Your task to perform on an android device: turn off location Image 0: 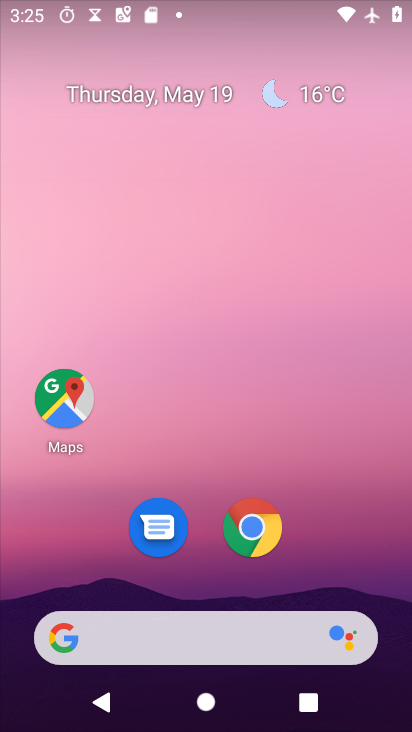
Step 0: drag from (319, 542) to (232, 14)
Your task to perform on an android device: turn off location Image 1: 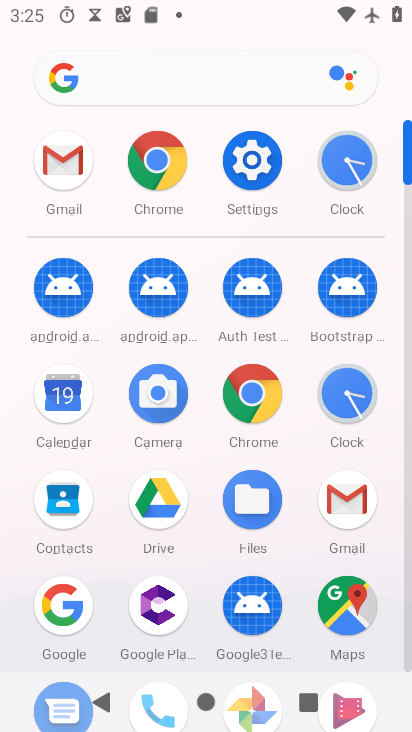
Step 1: click (240, 187)
Your task to perform on an android device: turn off location Image 2: 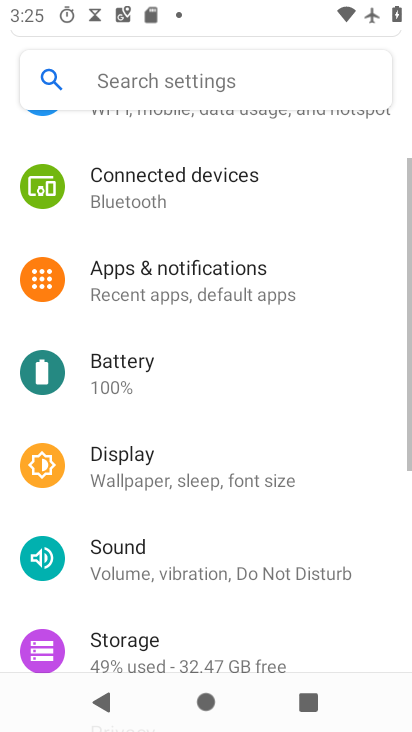
Step 2: drag from (254, 580) to (224, 129)
Your task to perform on an android device: turn off location Image 3: 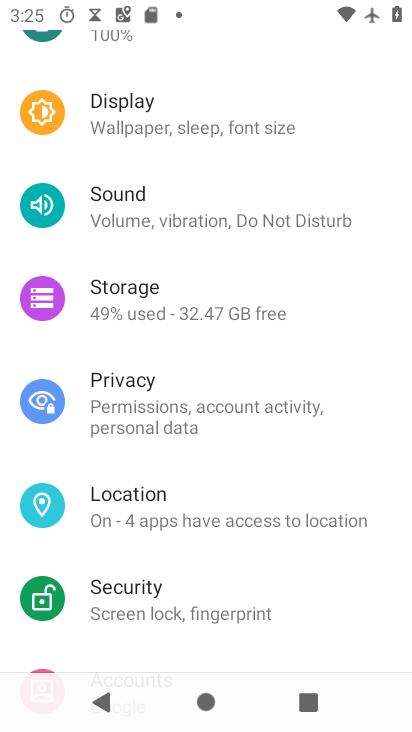
Step 3: click (195, 498)
Your task to perform on an android device: turn off location Image 4: 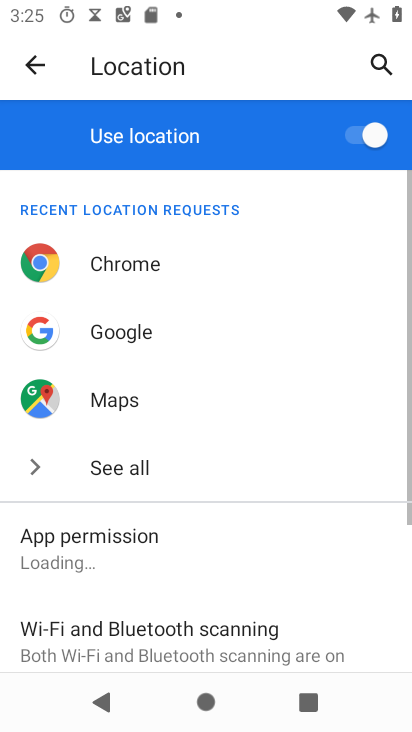
Step 4: click (345, 133)
Your task to perform on an android device: turn off location Image 5: 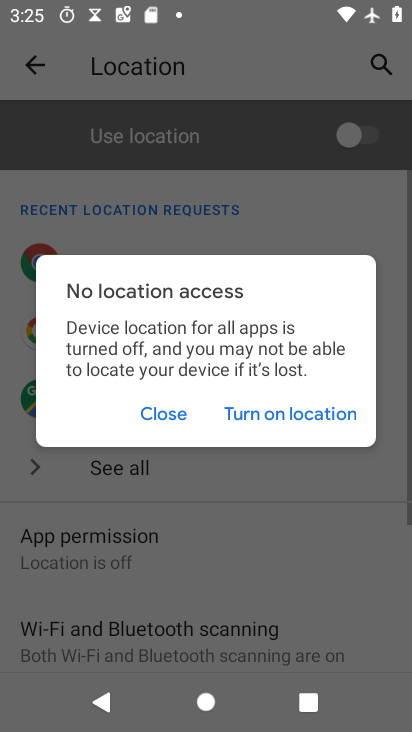
Step 5: task complete